Your task to perform on an android device: toggle wifi Image 0: 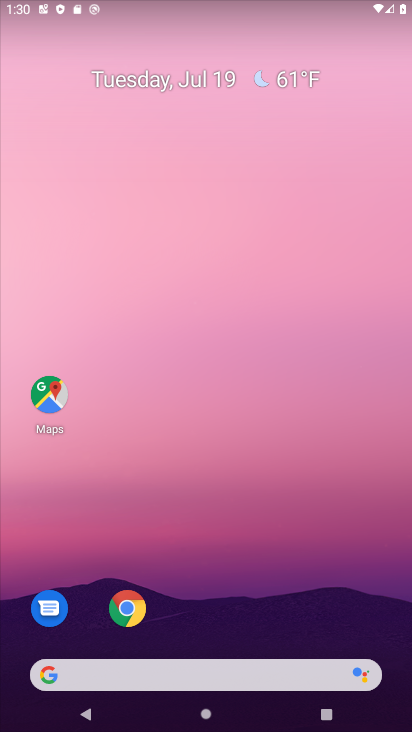
Step 0: drag from (297, 544) to (317, 1)
Your task to perform on an android device: toggle wifi Image 1: 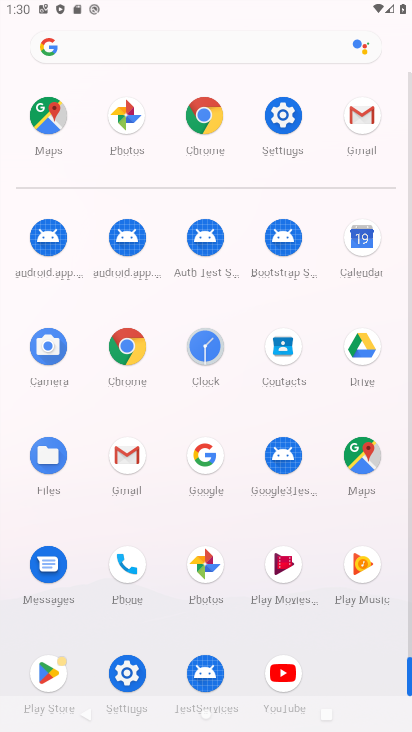
Step 1: click (281, 114)
Your task to perform on an android device: toggle wifi Image 2: 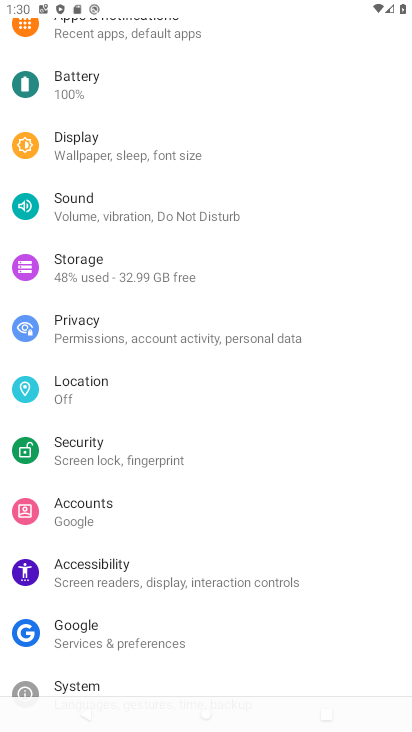
Step 2: drag from (162, 220) to (210, 706)
Your task to perform on an android device: toggle wifi Image 3: 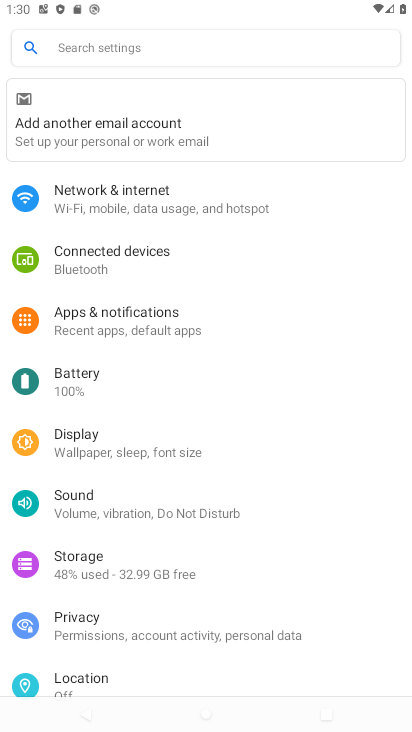
Step 3: click (112, 202)
Your task to perform on an android device: toggle wifi Image 4: 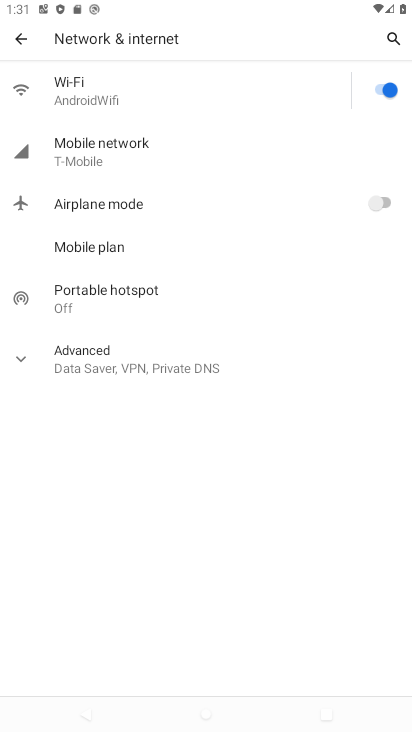
Step 4: click (387, 85)
Your task to perform on an android device: toggle wifi Image 5: 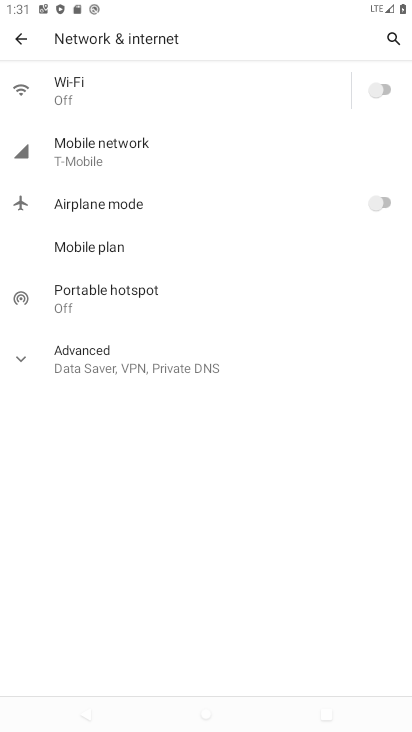
Step 5: task complete